Your task to perform on an android device: move an email to a new category in the gmail app Image 0: 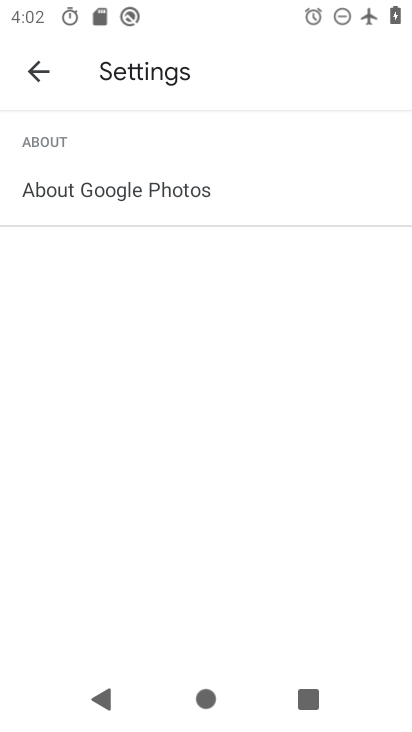
Step 0: press home button
Your task to perform on an android device: move an email to a new category in the gmail app Image 1: 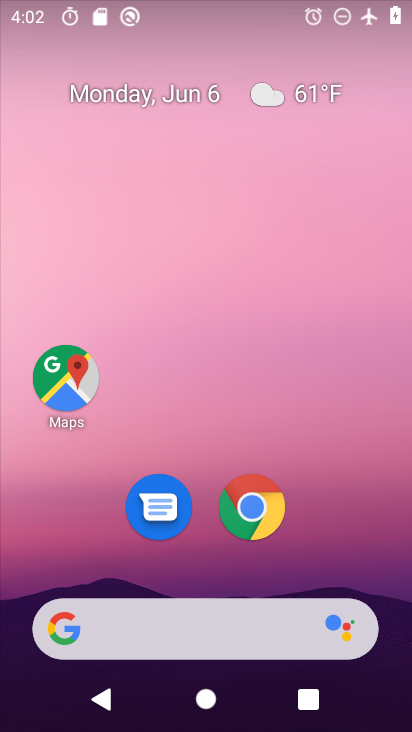
Step 1: drag from (206, 577) to (227, 123)
Your task to perform on an android device: move an email to a new category in the gmail app Image 2: 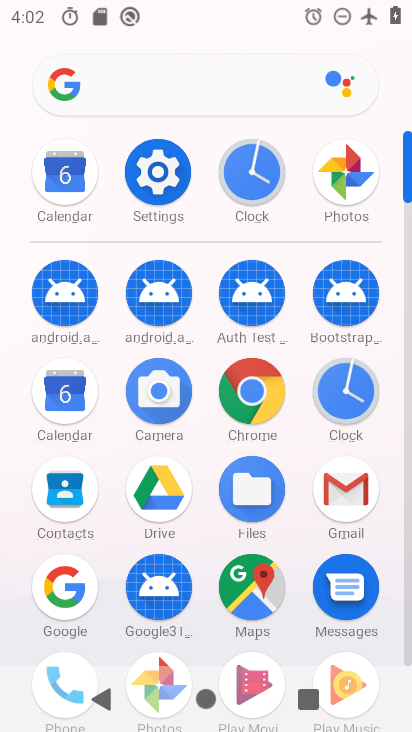
Step 2: click (330, 493)
Your task to perform on an android device: move an email to a new category in the gmail app Image 3: 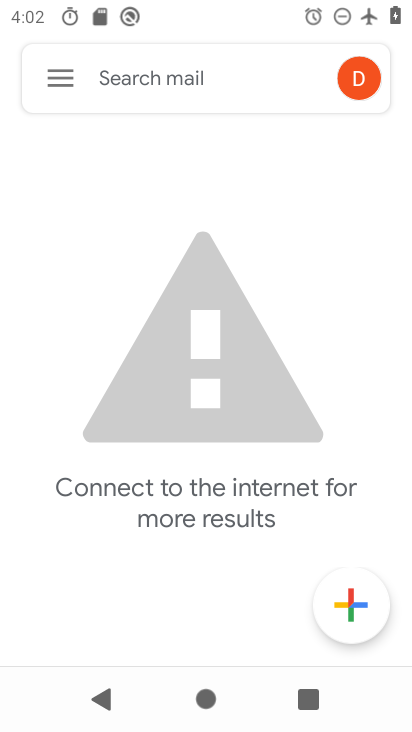
Step 3: click (71, 85)
Your task to perform on an android device: move an email to a new category in the gmail app Image 4: 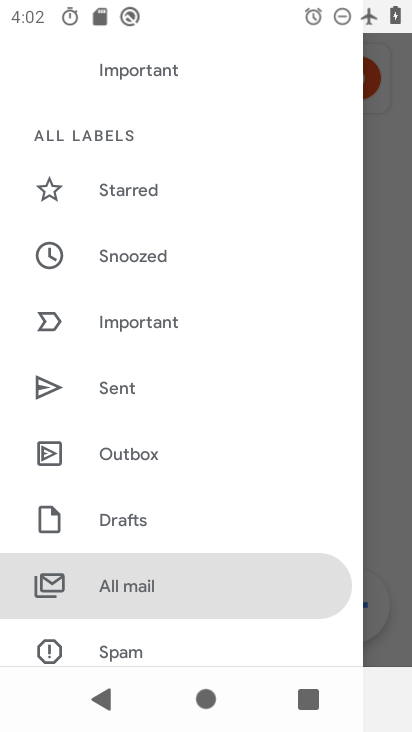
Step 4: click (186, 584)
Your task to perform on an android device: move an email to a new category in the gmail app Image 5: 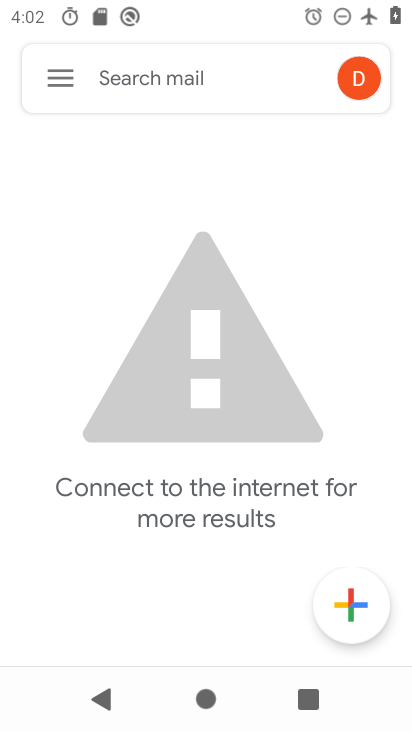
Step 5: task complete